Your task to perform on an android device: Open CNN.com Image 0: 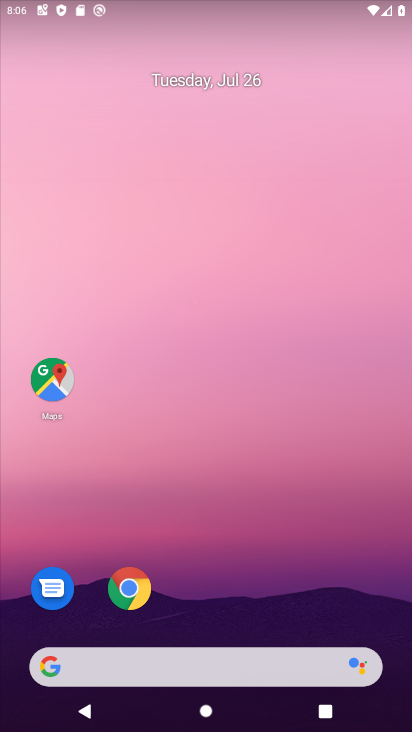
Step 0: click (222, 691)
Your task to perform on an android device: Open CNN.com Image 1: 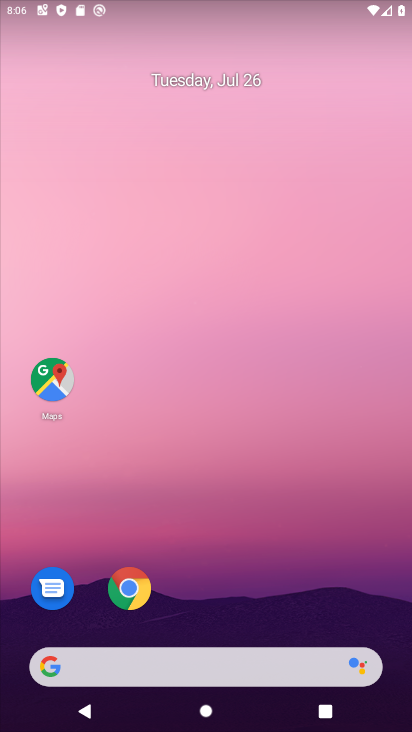
Step 1: click (216, 675)
Your task to perform on an android device: Open CNN.com Image 2: 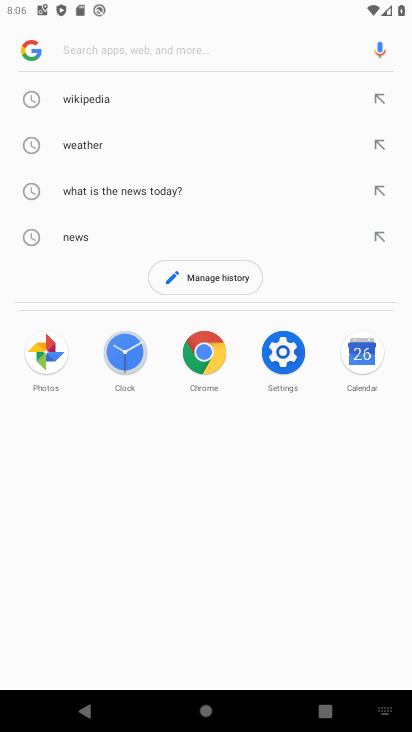
Step 2: type " CNN.com"
Your task to perform on an android device: Open CNN.com Image 3: 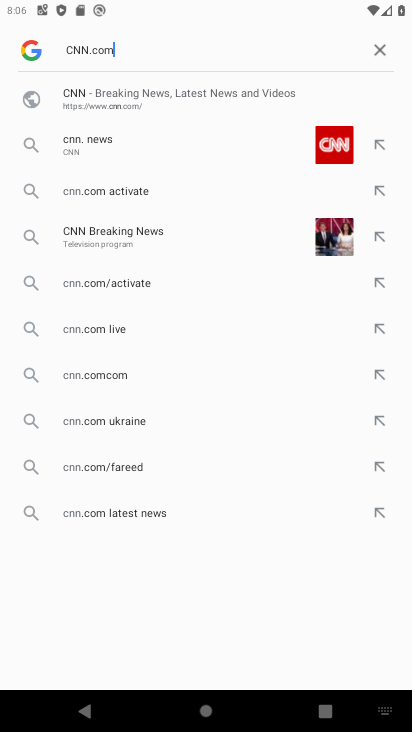
Step 3: press enter
Your task to perform on an android device: Open CNN.com Image 4: 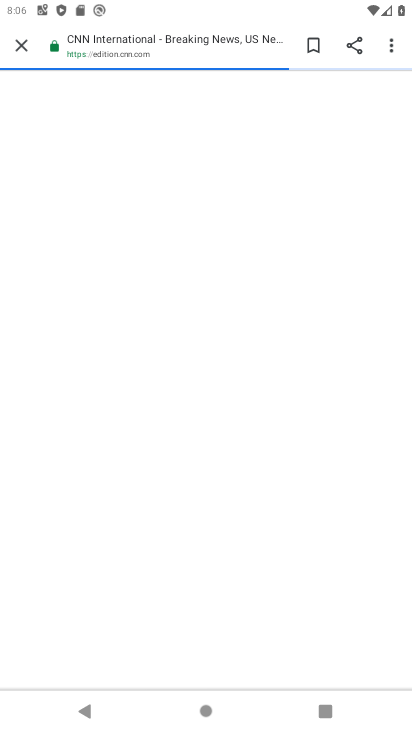
Step 4: task complete